Your task to perform on an android device: delete location history Image 0: 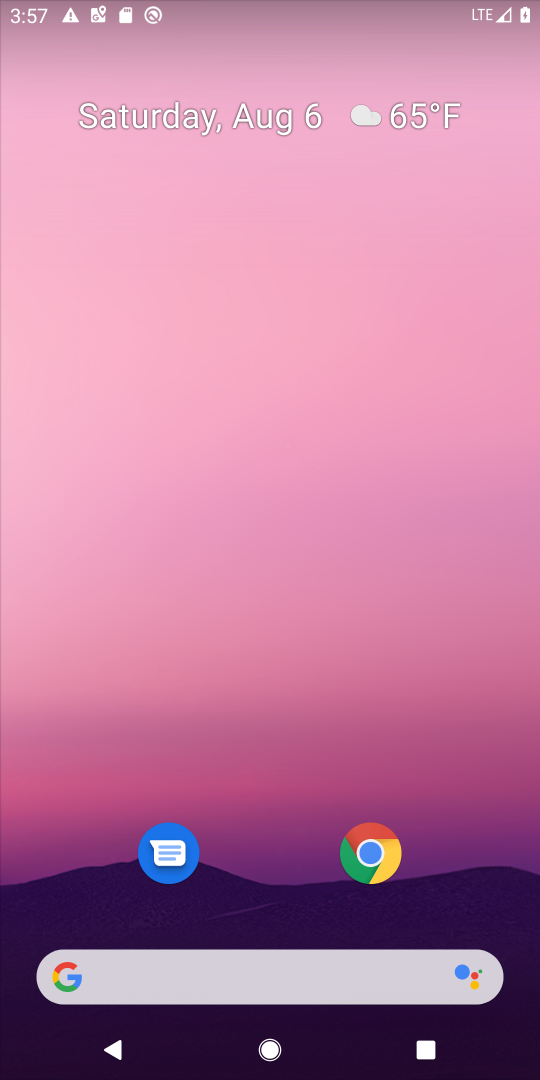
Step 0: drag from (252, 784) to (314, 42)
Your task to perform on an android device: delete location history Image 1: 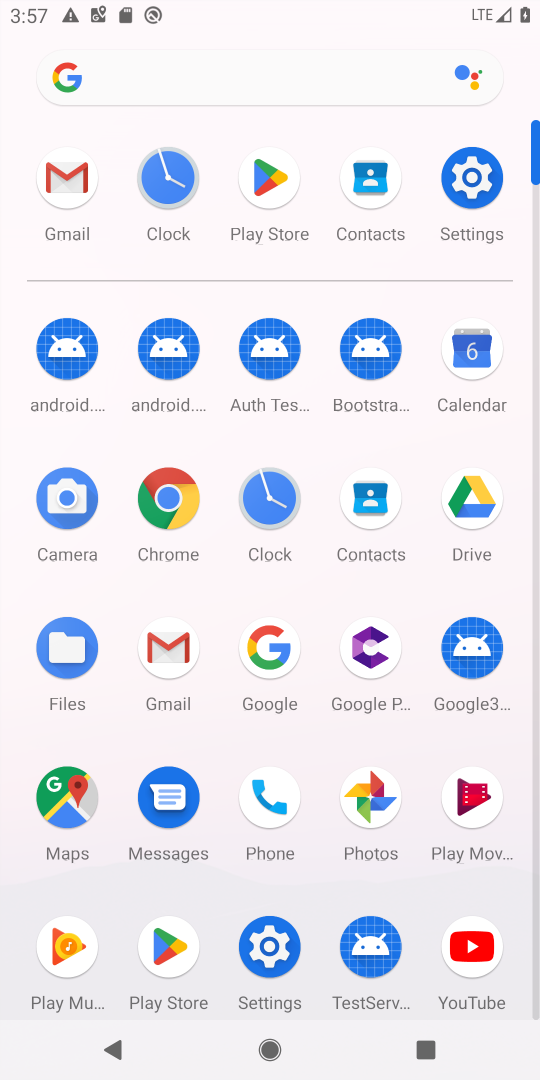
Step 1: click (471, 189)
Your task to perform on an android device: delete location history Image 2: 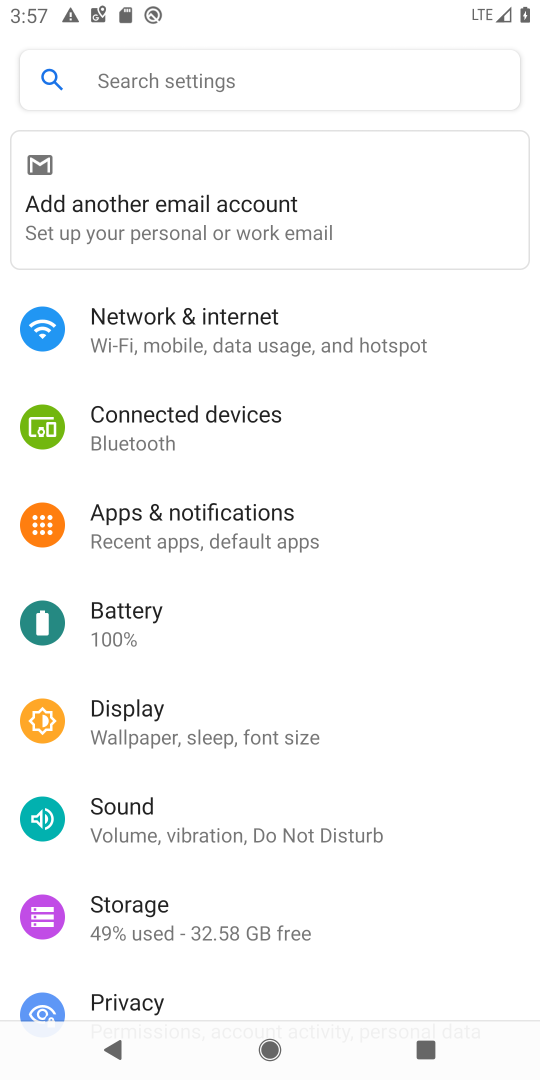
Step 2: drag from (291, 922) to (400, 194)
Your task to perform on an android device: delete location history Image 3: 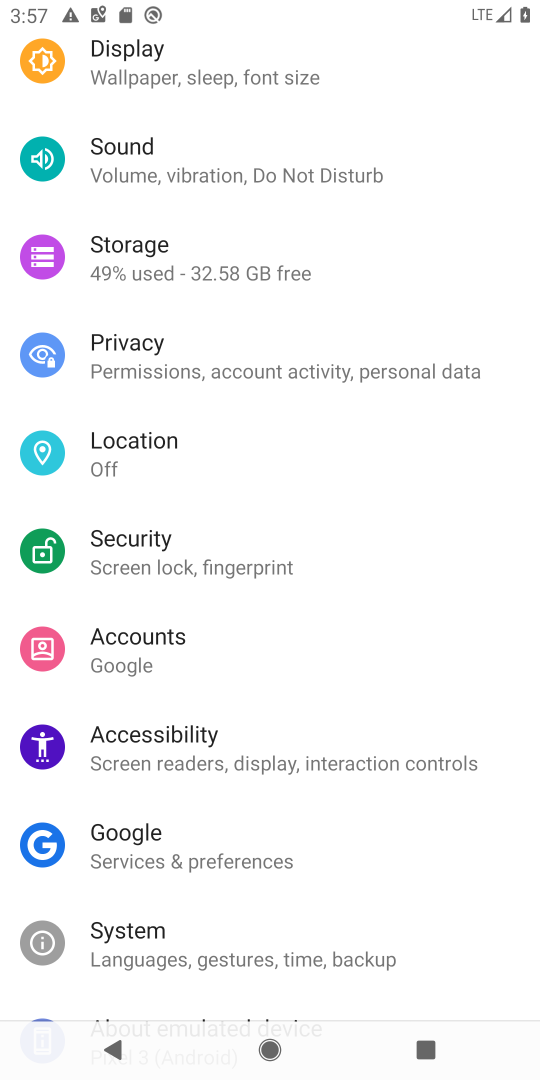
Step 3: click (281, 456)
Your task to perform on an android device: delete location history Image 4: 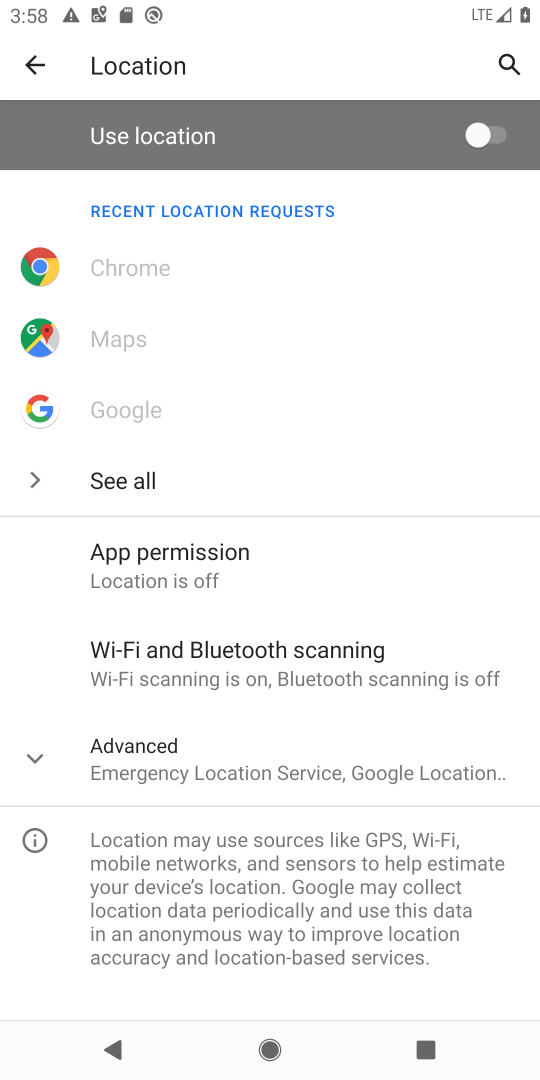
Step 4: press back button
Your task to perform on an android device: delete location history Image 5: 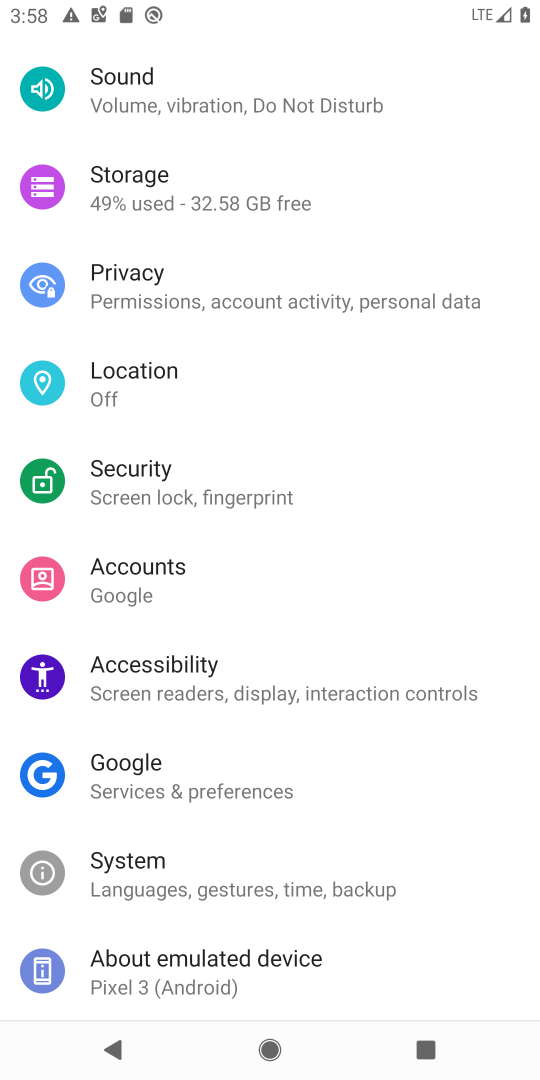
Step 5: press back button
Your task to perform on an android device: delete location history Image 6: 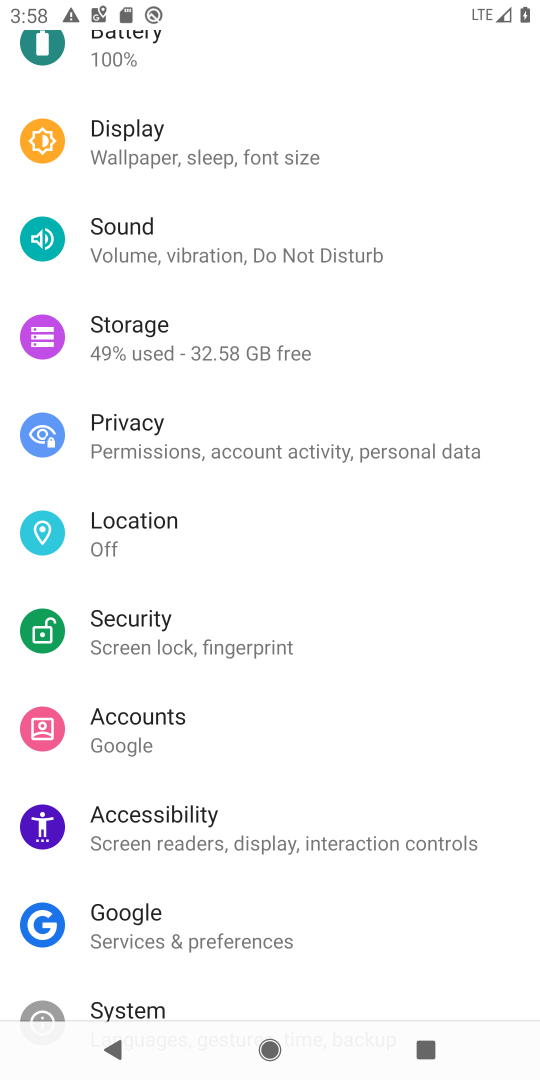
Step 6: press back button
Your task to perform on an android device: delete location history Image 7: 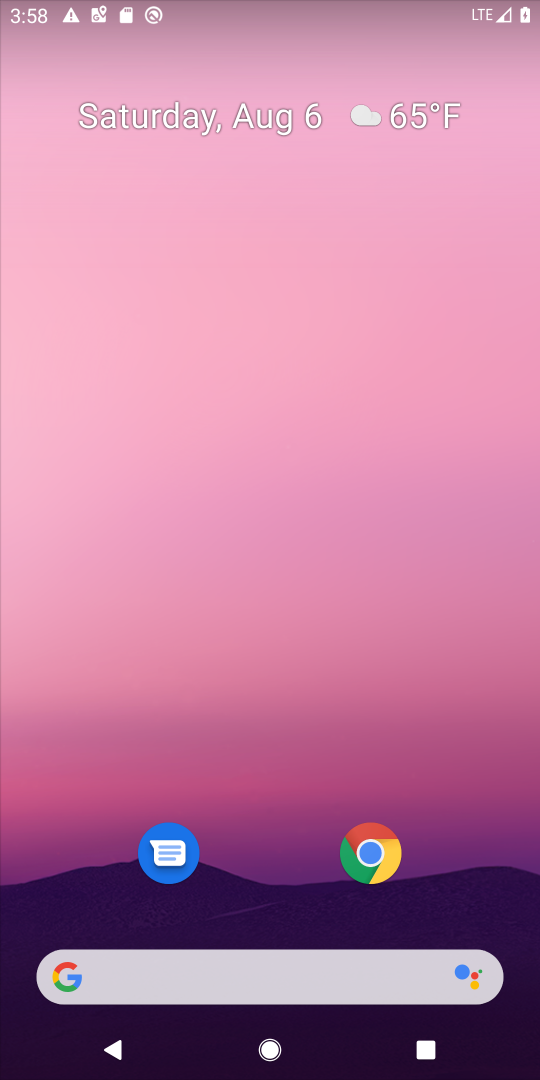
Step 7: drag from (336, 933) to (333, 174)
Your task to perform on an android device: delete location history Image 8: 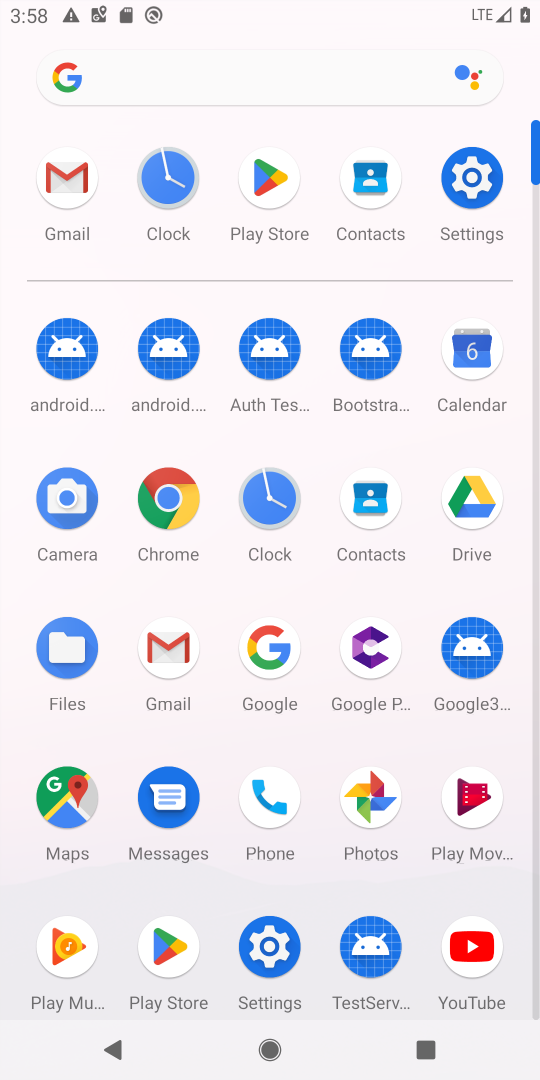
Step 8: click (67, 795)
Your task to perform on an android device: delete location history Image 9: 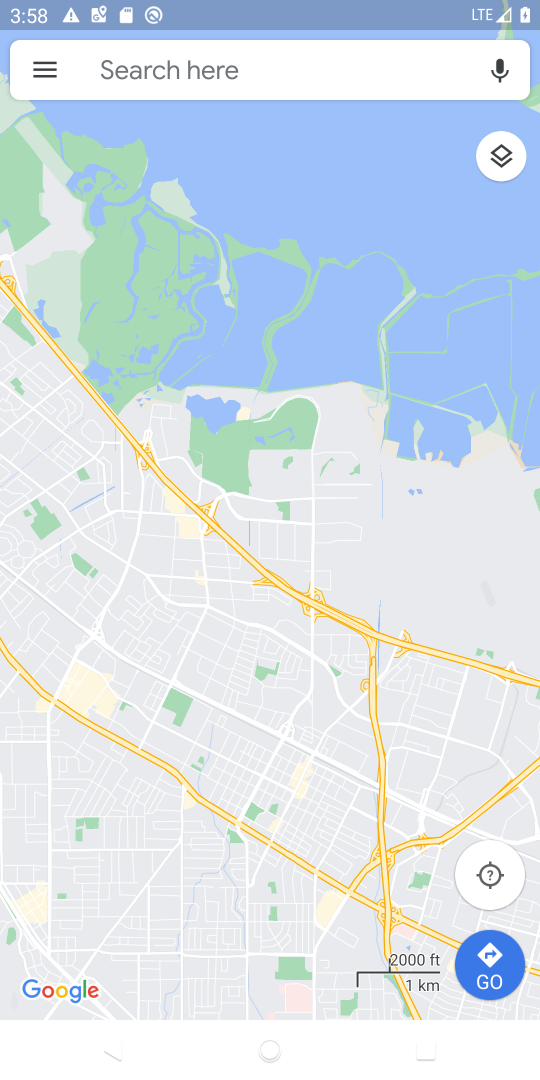
Step 9: click (43, 61)
Your task to perform on an android device: delete location history Image 10: 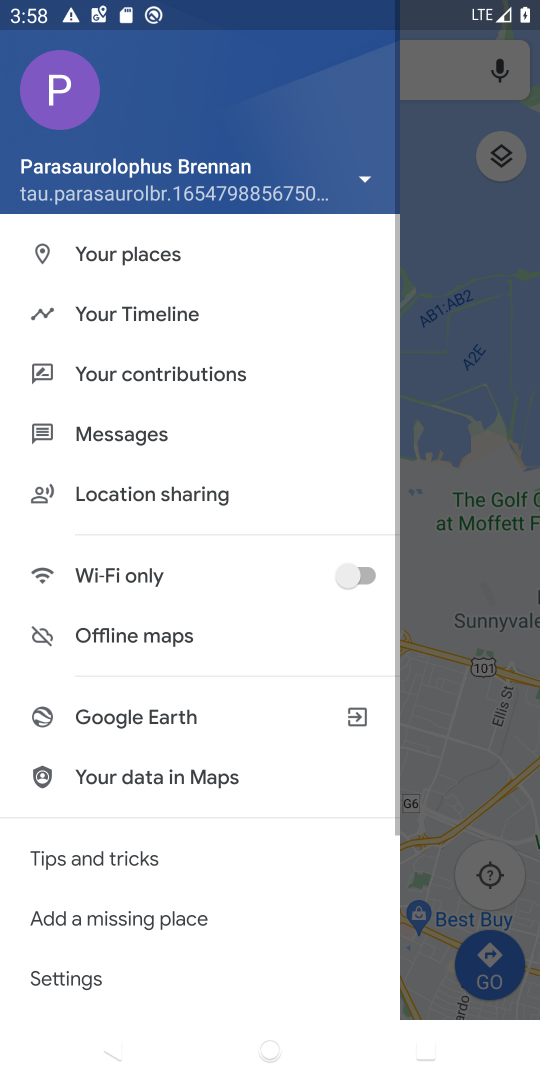
Step 10: click (198, 311)
Your task to perform on an android device: delete location history Image 11: 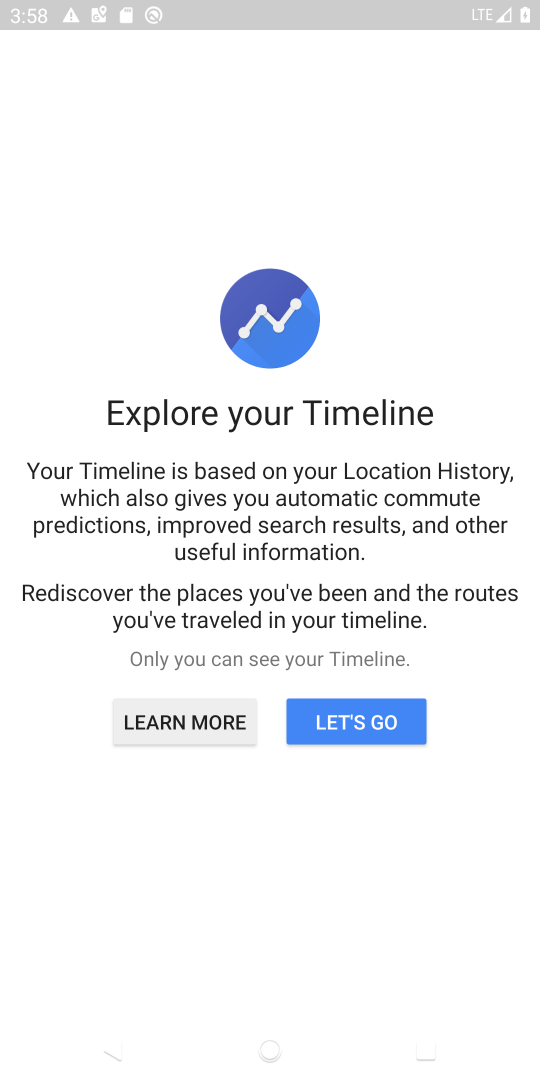
Step 11: click (366, 724)
Your task to perform on an android device: delete location history Image 12: 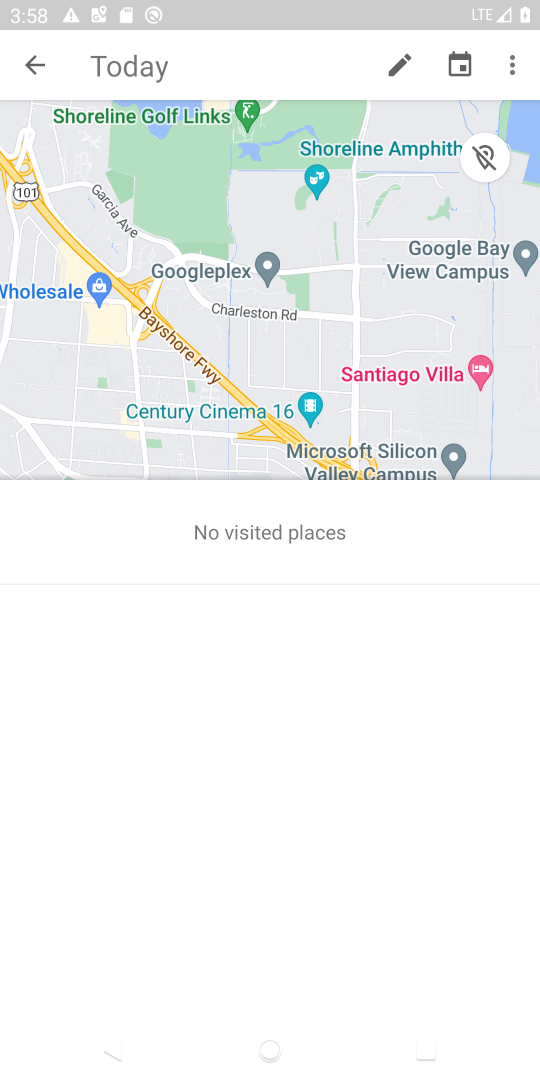
Step 12: click (508, 64)
Your task to perform on an android device: delete location history Image 13: 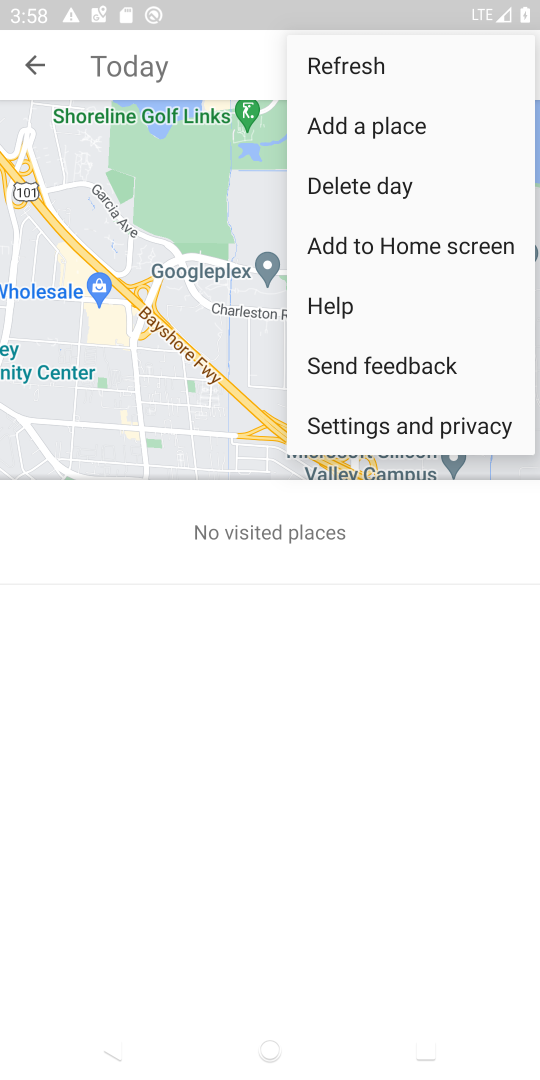
Step 13: click (418, 421)
Your task to perform on an android device: delete location history Image 14: 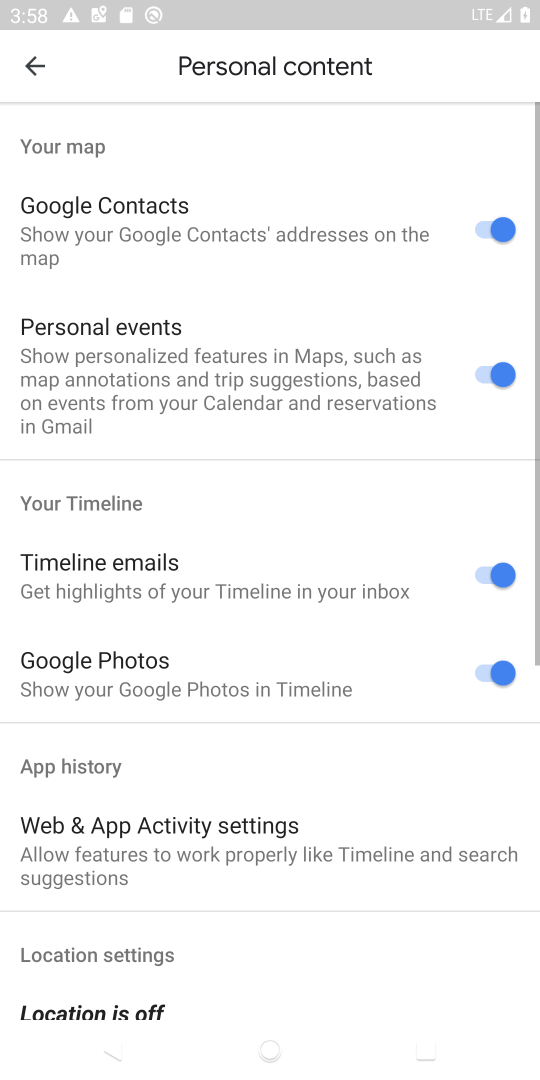
Step 14: drag from (270, 811) to (374, 137)
Your task to perform on an android device: delete location history Image 15: 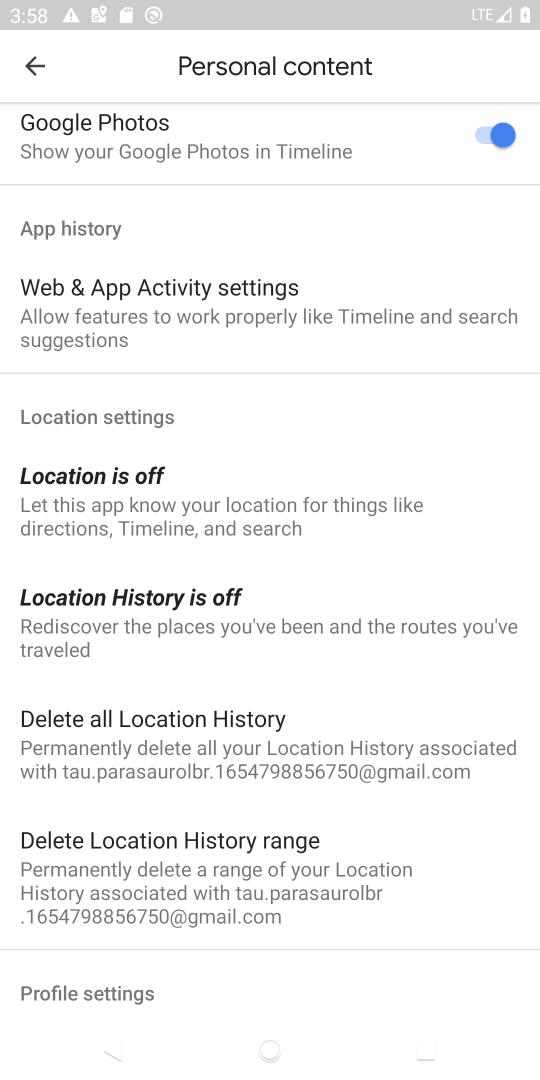
Step 15: click (274, 747)
Your task to perform on an android device: delete location history Image 16: 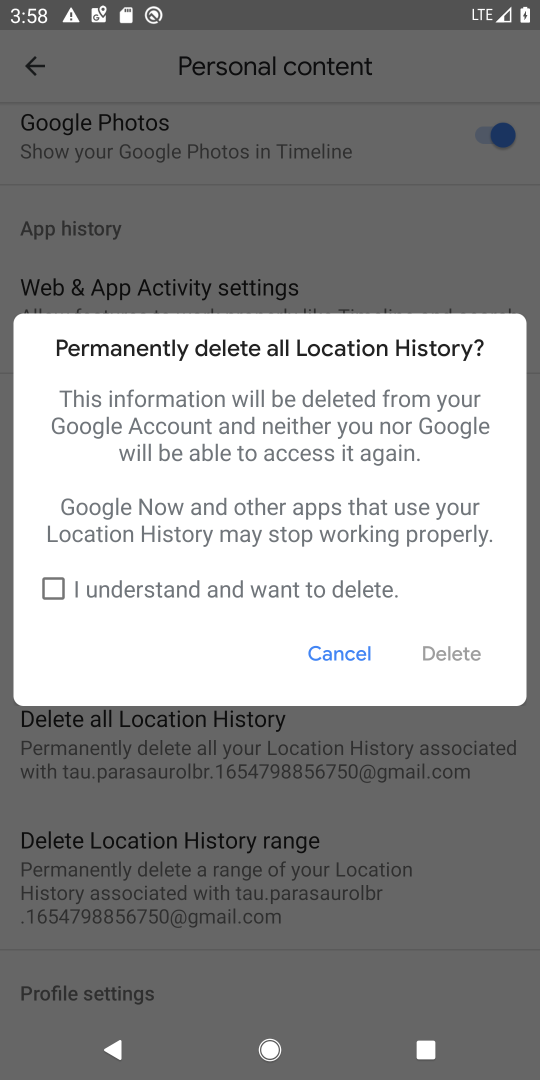
Step 16: click (55, 580)
Your task to perform on an android device: delete location history Image 17: 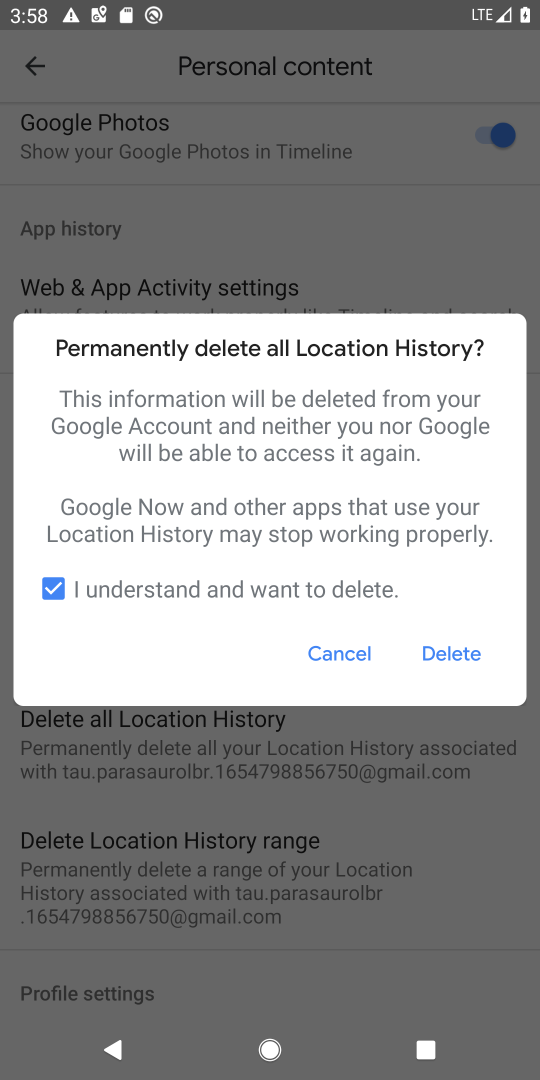
Step 17: click (447, 654)
Your task to perform on an android device: delete location history Image 18: 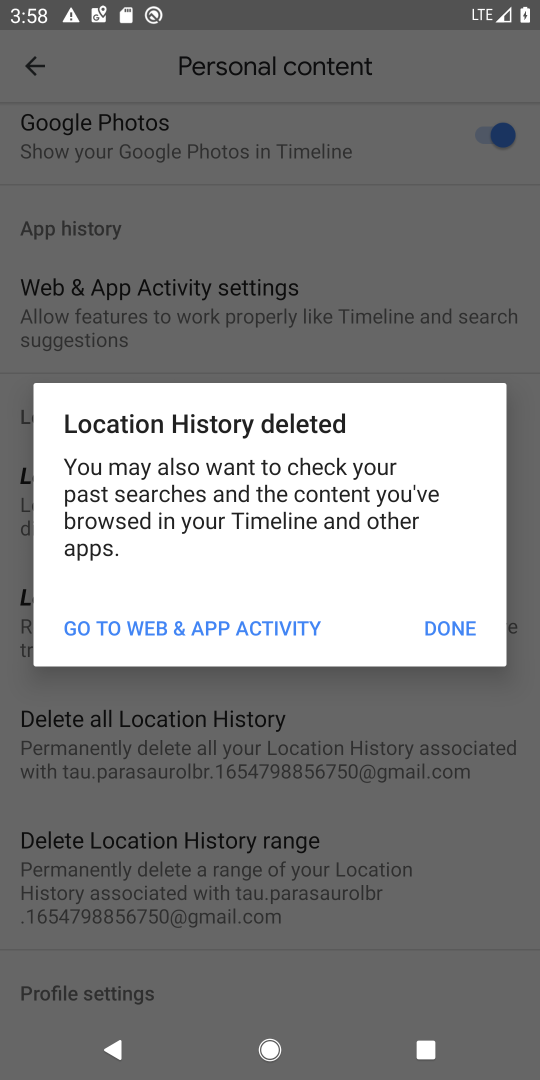
Step 18: click (465, 627)
Your task to perform on an android device: delete location history Image 19: 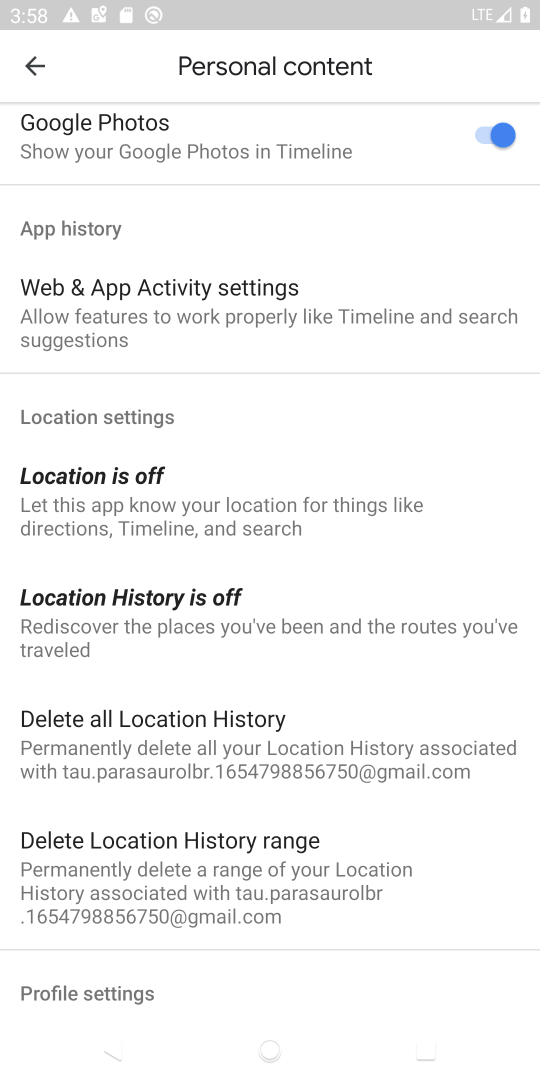
Step 19: task complete